Your task to perform on an android device: open device folders in google photos Image 0: 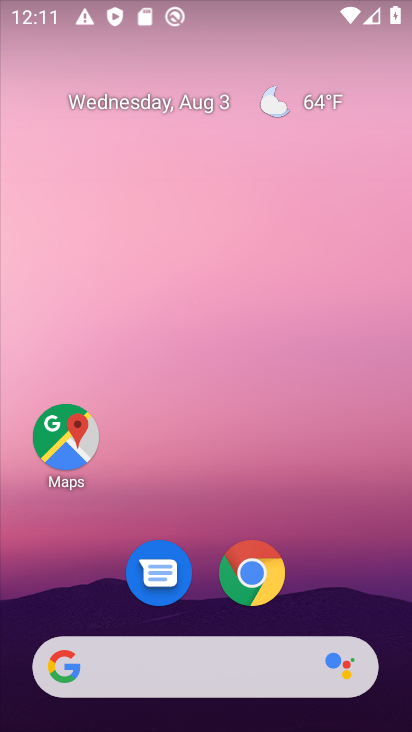
Step 0: drag from (278, 618) to (266, 133)
Your task to perform on an android device: open device folders in google photos Image 1: 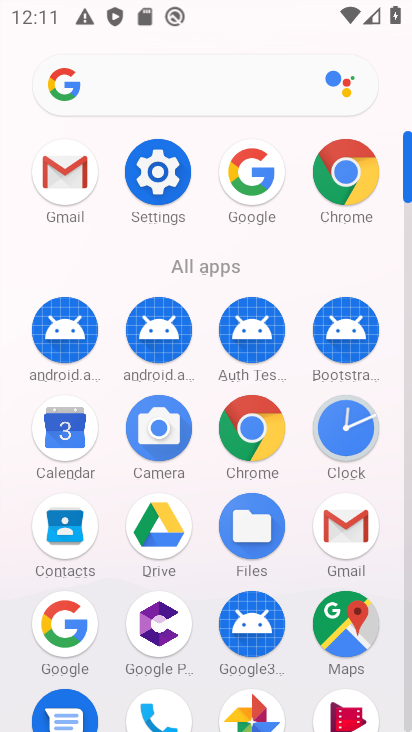
Step 1: drag from (230, 576) to (263, 225)
Your task to perform on an android device: open device folders in google photos Image 2: 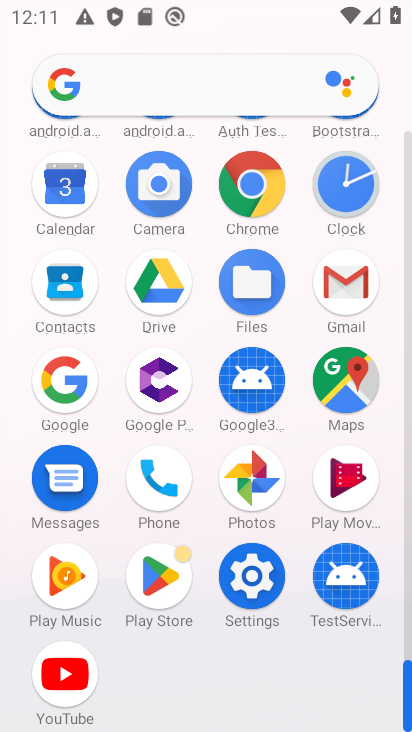
Step 2: click (248, 500)
Your task to perform on an android device: open device folders in google photos Image 3: 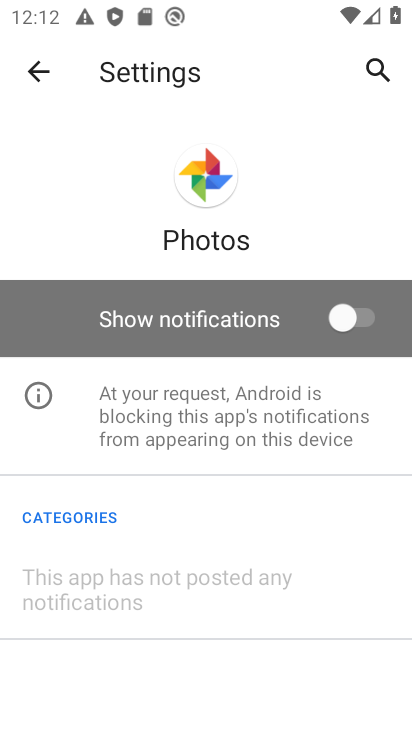
Step 3: click (40, 71)
Your task to perform on an android device: open device folders in google photos Image 4: 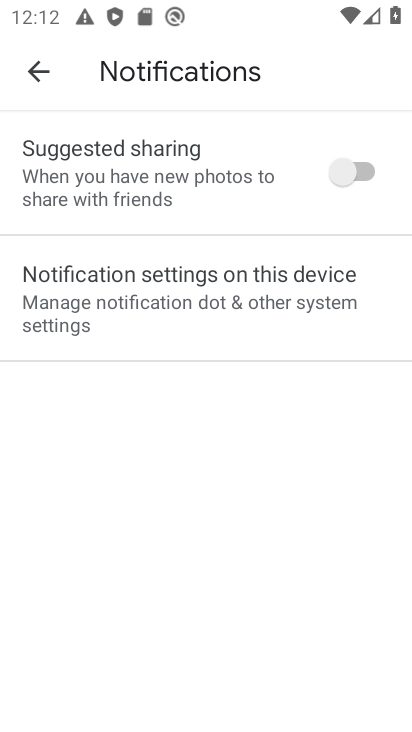
Step 4: click (34, 89)
Your task to perform on an android device: open device folders in google photos Image 5: 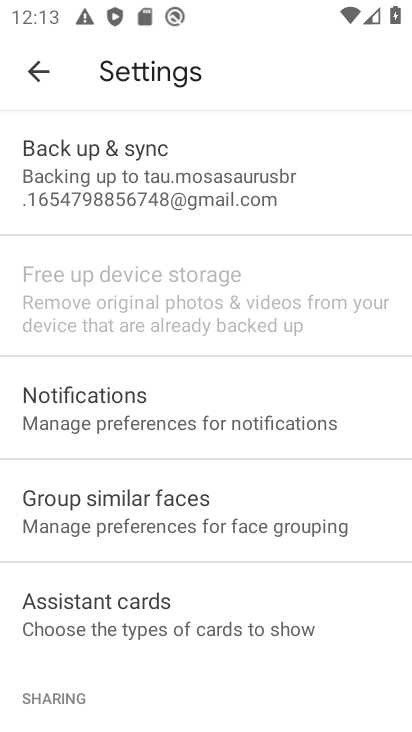
Step 5: click (36, 66)
Your task to perform on an android device: open device folders in google photos Image 6: 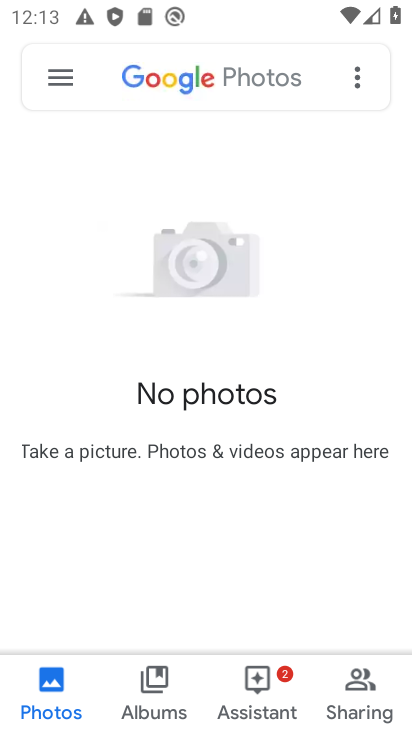
Step 6: click (56, 78)
Your task to perform on an android device: open device folders in google photos Image 7: 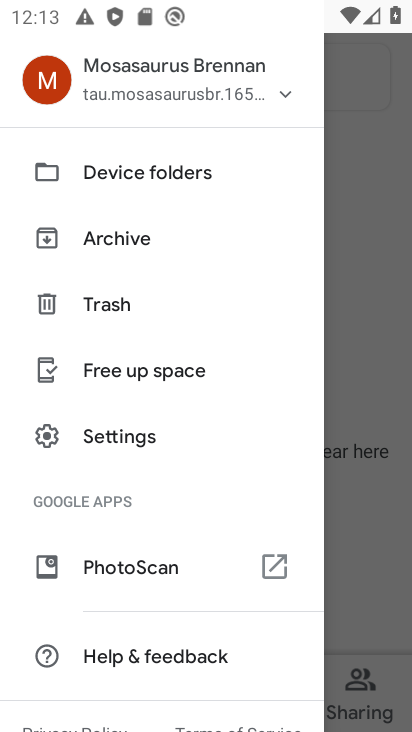
Step 7: click (128, 169)
Your task to perform on an android device: open device folders in google photos Image 8: 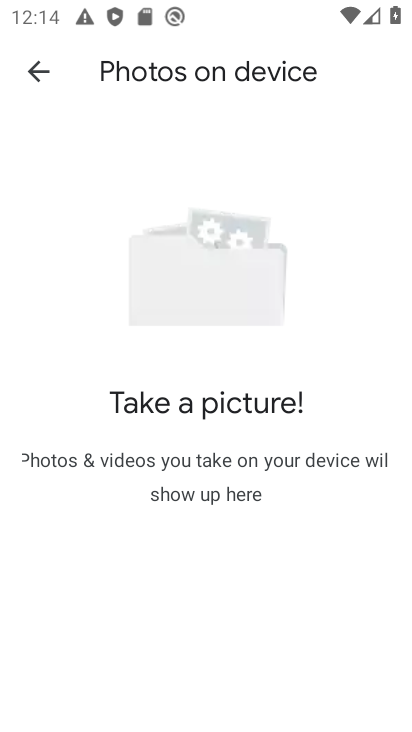
Step 8: task complete